Your task to perform on an android device: add a contact in the contacts app Image 0: 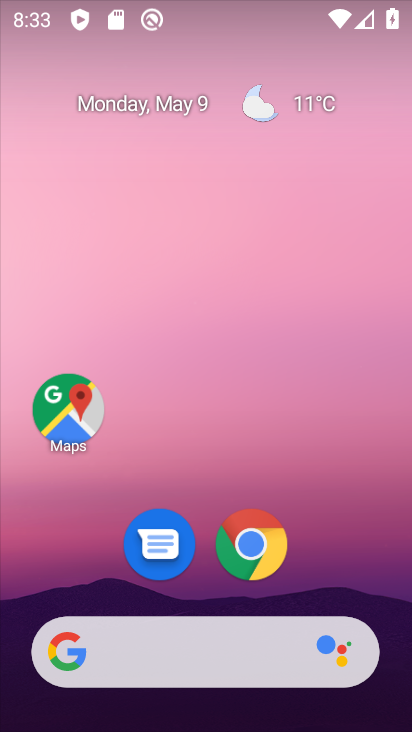
Step 0: drag from (398, 499) to (410, 88)
Your task to perform on an android device: add a contact in the contacts app Image 1: 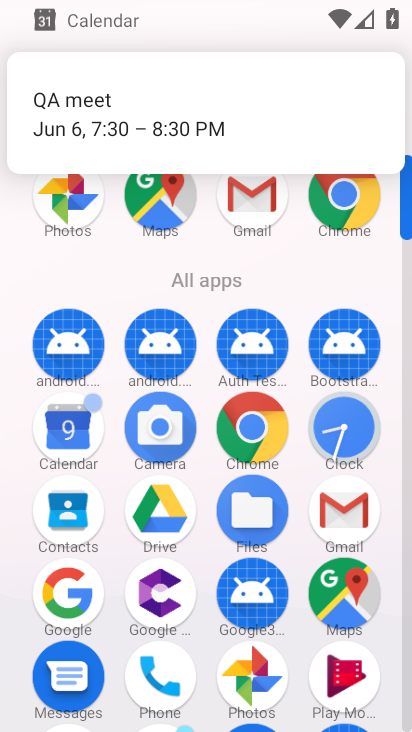
Step 1: click (78, 518)
Your task to perform on an android device: add a contact in the contacts app Image 2: 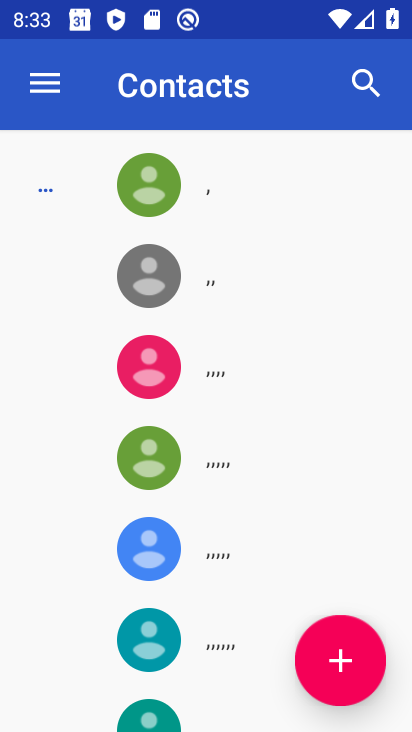
Step 2: click (343, 668)
Your task to perform on an android device: add a contact in the contacts app Image 3: 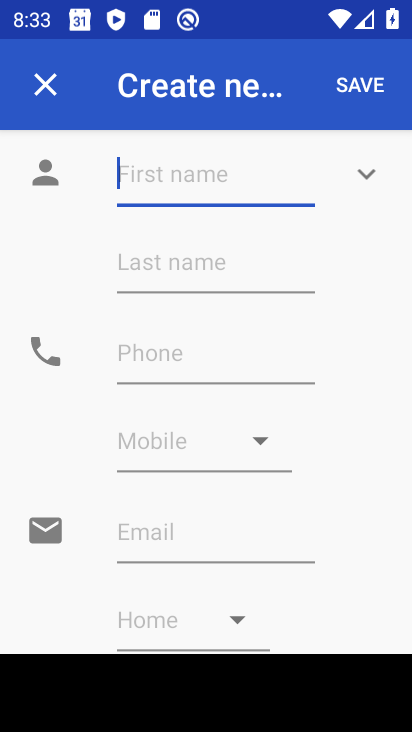
Step 3: type "dfghjksdfg"
Your task to perform on an android device: add a contact in the contacts app Image 4: 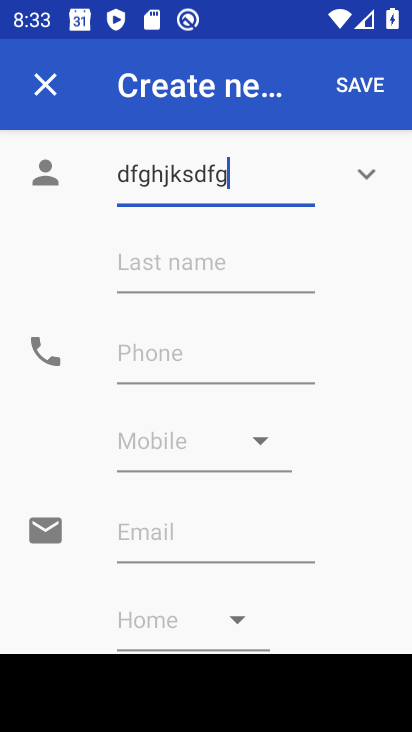
Step 4: click (133, 259)
Your task to perform on an android device: add a contact in the contacts app Image 5: 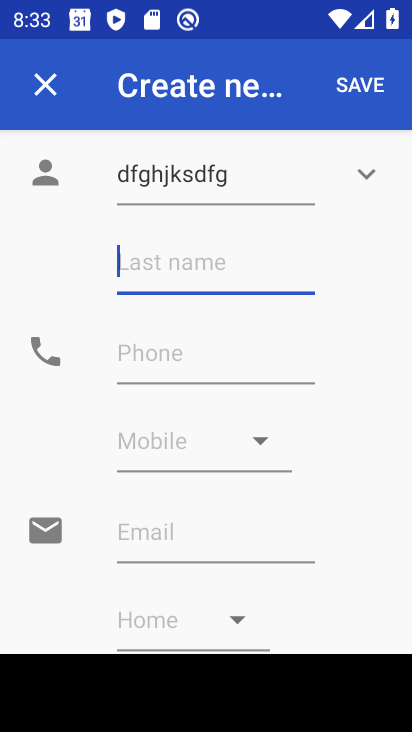
Step 5: type "ertyujfgh"
Your task to perform on an android device: add a contact in the contacts app Image 6: 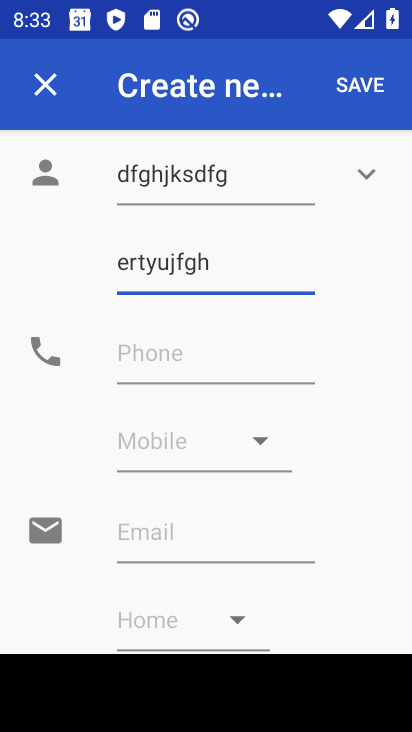
Step 6: click (164, 360)
Your task to perform on an android device: add a contact in the contacts app Image 7: 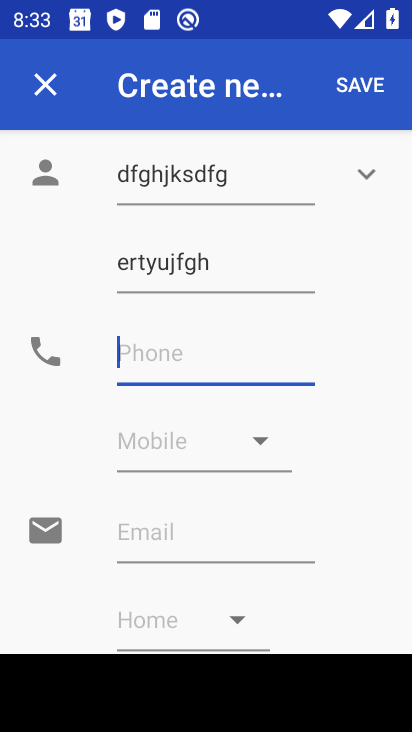
Step 7: type "87567453544"
Your task to perform on an android device: add a contact in the contacts app Image 8: 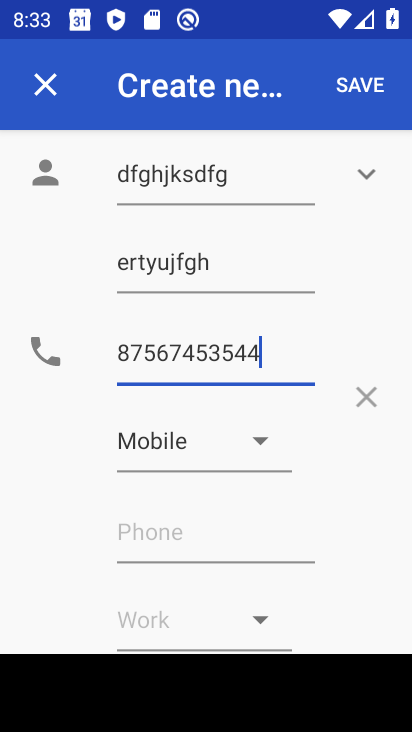
Step 8: click (363, 81)
Your task to perform on an android device: add a contact in the contacts app Image 9: 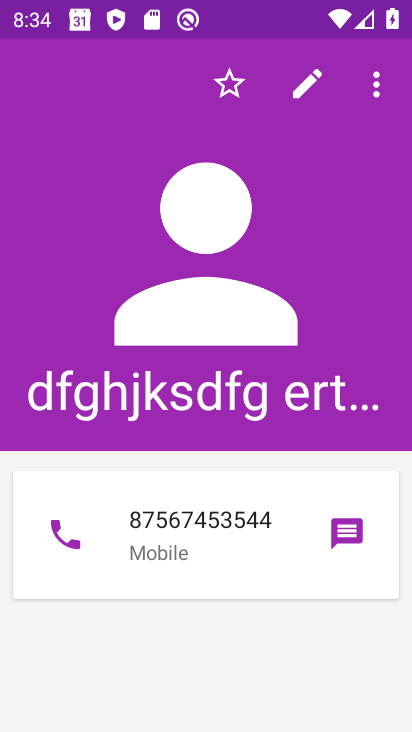
Step 9: task complete